Your task to perform on an android device: turn on javascript in the chrome app Image 0: 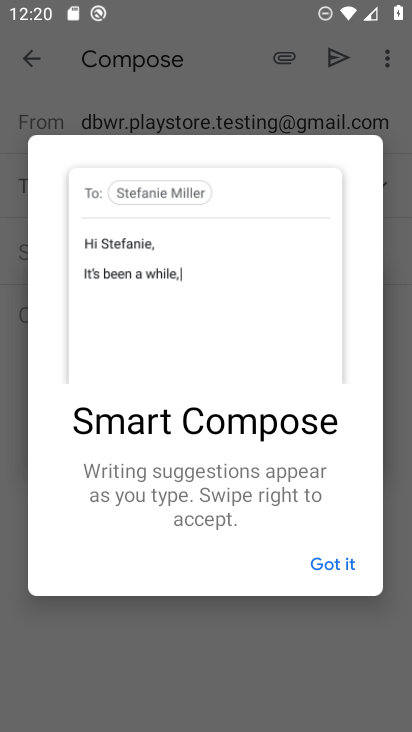
Step 0: press home button
Your task to perform on an android device: turn on javascript in the chrome app Image 1: 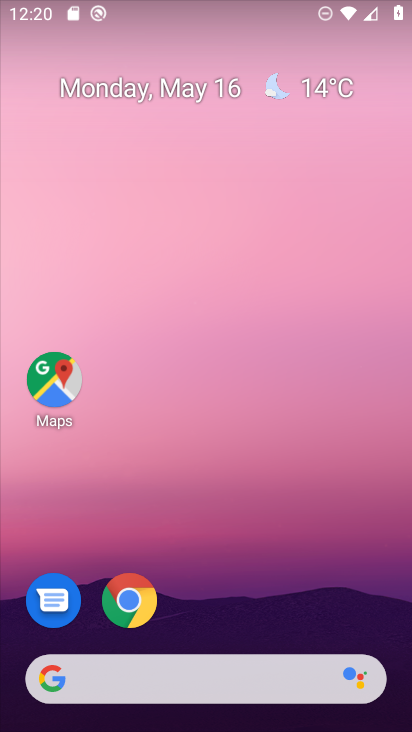
Step 1: click (130, 600)
Your task to perform on an android device: turn on javascript in the chrome app Image 2: 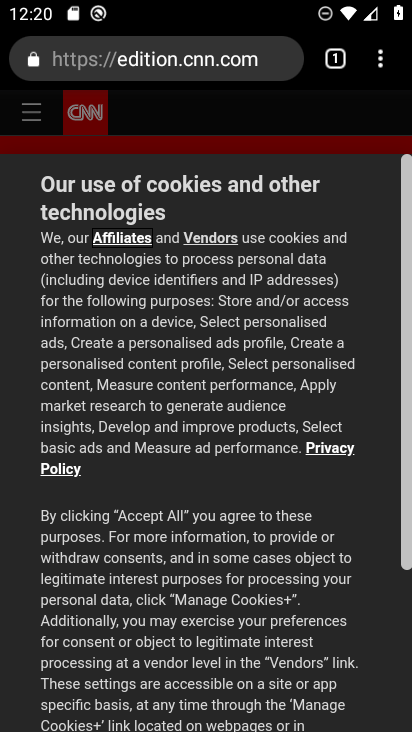
Step 2: click (379, 63)
Your task to perform on an android device: turn on javascript in the chrome app Image 3: 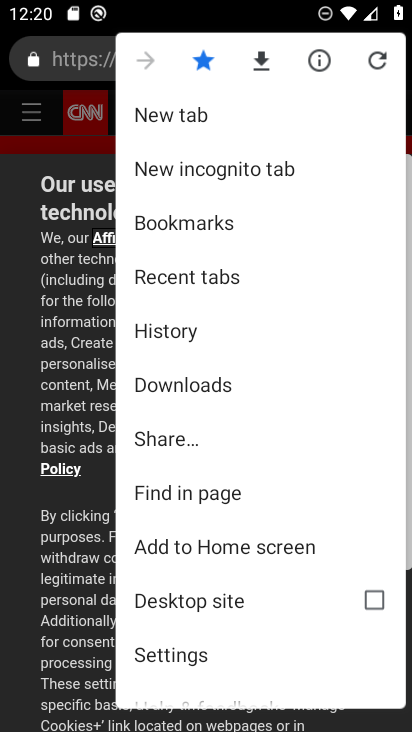
Step 3: click (196, 659)
Your task to perform on an android device: turn on javascript in the chrome app Image 4: 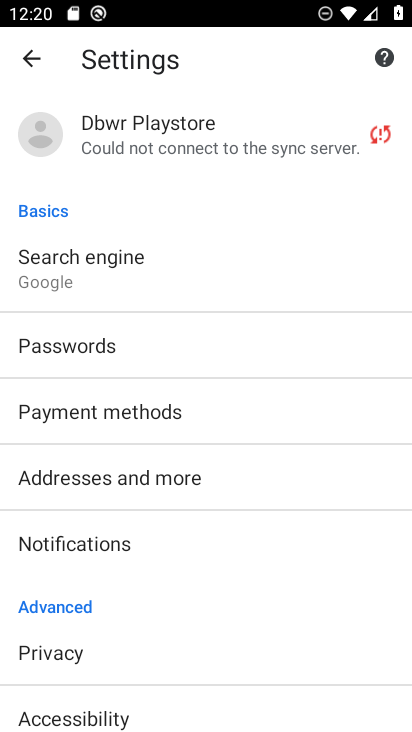
Step 4: drag from (187, 694) to (168, 315)
Your task to perform on an android device: turn on javascript in the chrome app Image 5: 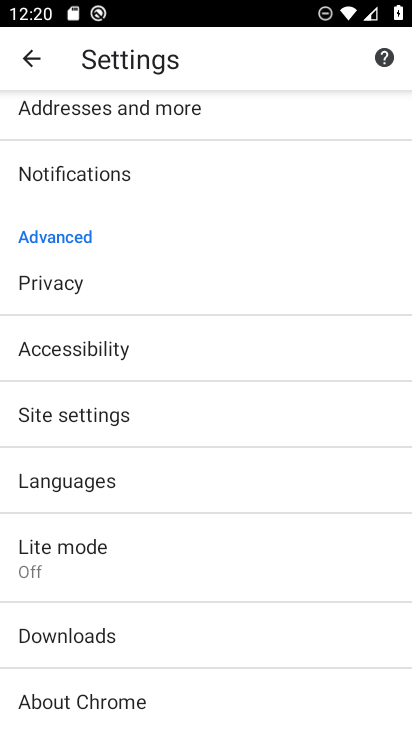
Step 5: click (85, 416)
Your task to perform on an android device: turn on javascript in the chrome app Image 6: 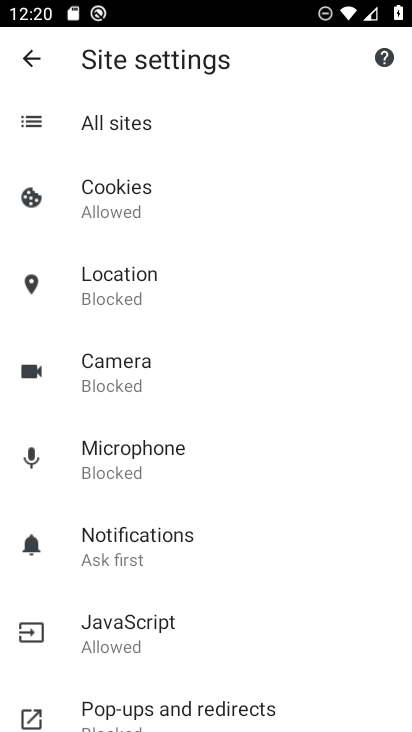
Step 6: drag from (223, 669) to (226, 325)
Your task to perform on an android device: turn on javascript in the chrome app Image 7: 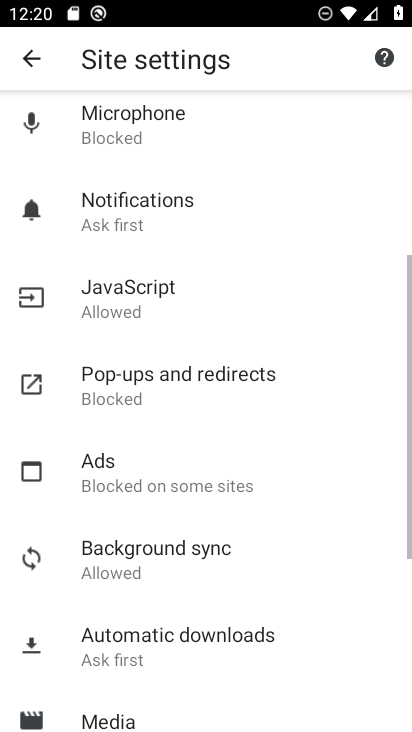
Step 7: click (113, 293)
Your task to perform on an android device: turn on javascript in the chrome app Image 8: 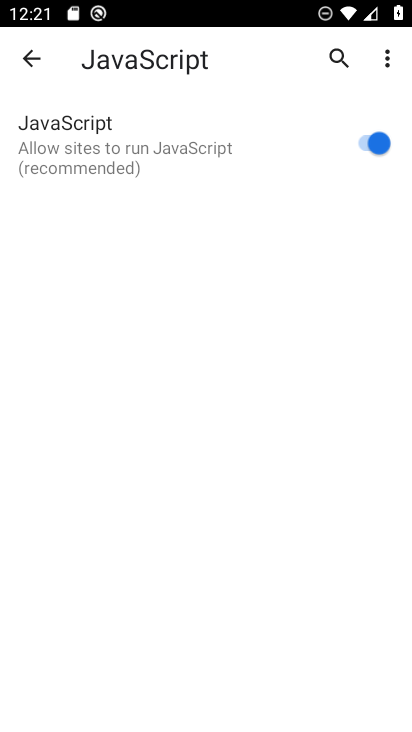
Step 8: task complete